Your task to perform on an android device: turn off wifi Image 0: 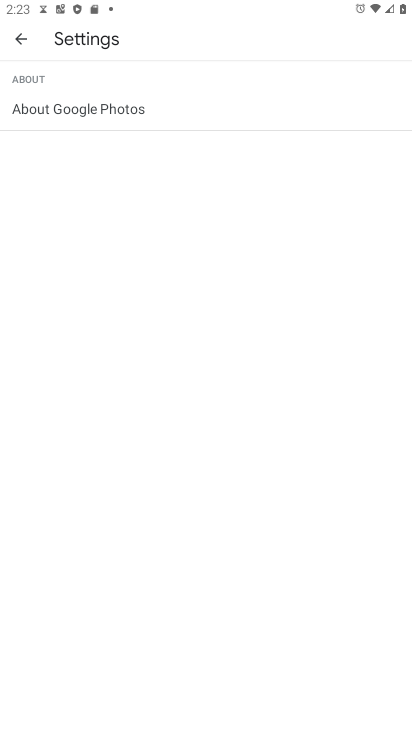
Step 0: press home button
Your task to perform on an android device: turn off wifi Image 1: 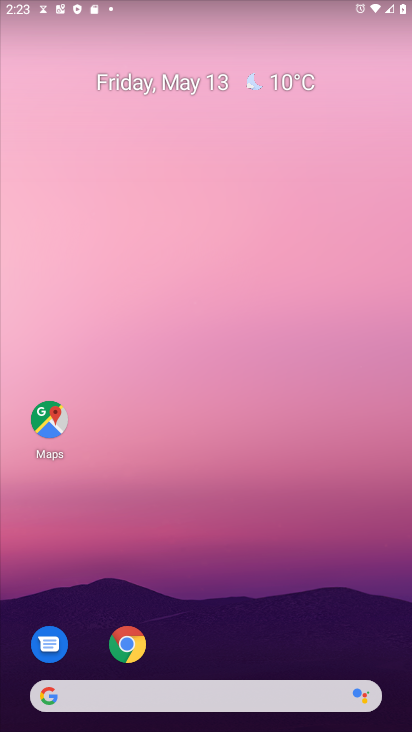
Step 1: drag from (218, 723) to (245, 322)
Your task to perform on an android device: turn off wifi Image 2: 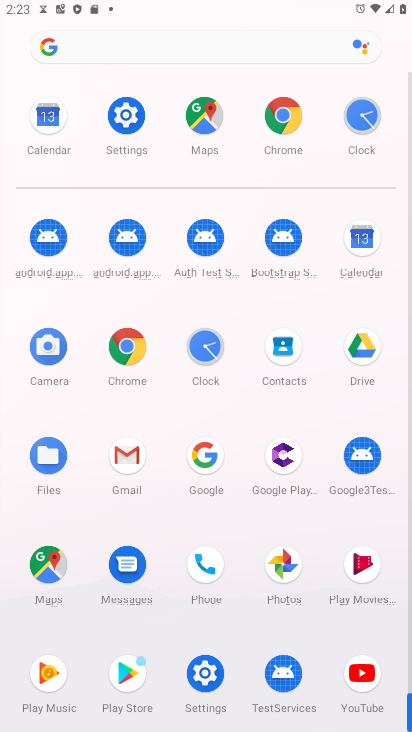
Step 2: click (119, 115)
Your task to perform on an android device: turn off wifi Image 3: 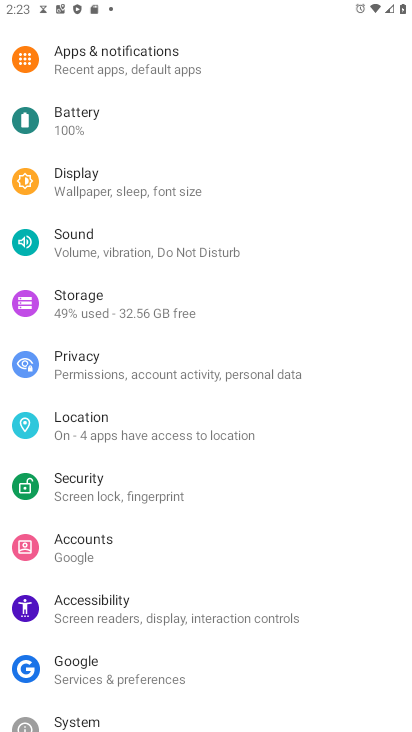
Step 3: drag from (196, 95) to (185, 513)
Your task to perform on an android device: turn off wifi Image 4: 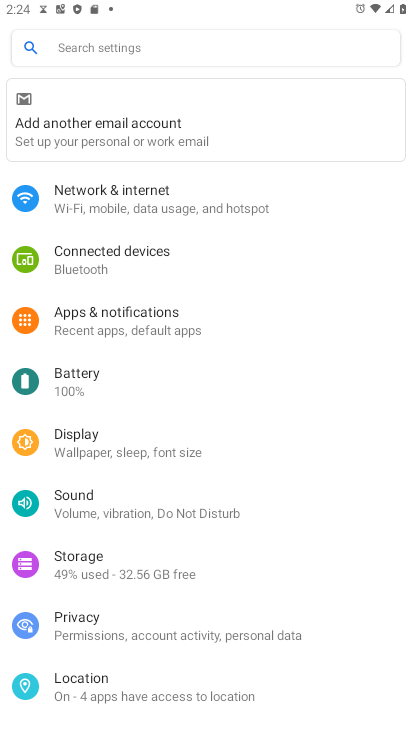
Step 4: click (92, 205)
Your task to perform on an android device: turn off wifi Image 5: 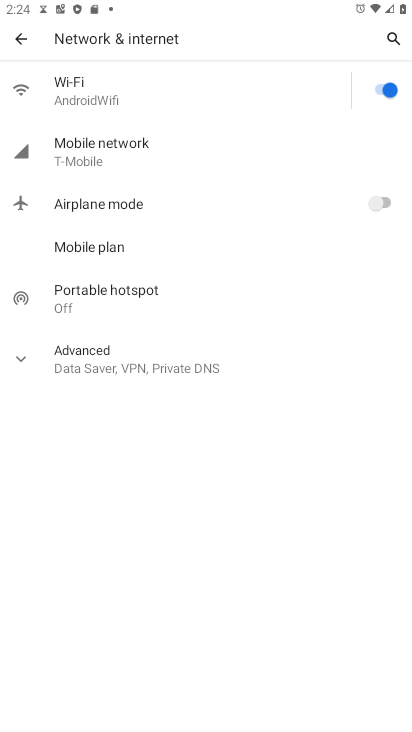
Step 5: click (377, 86)
Your task to perform on an android device: turn off wifi Image 6: 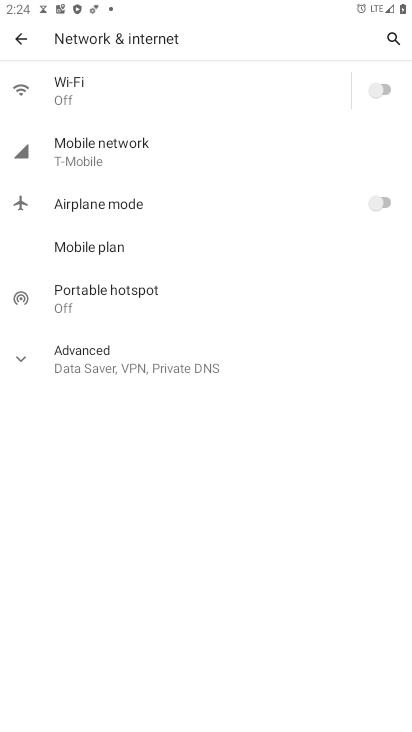
Step 6: task complete